Your task to perform on an android device: Open sound settings Image 0: 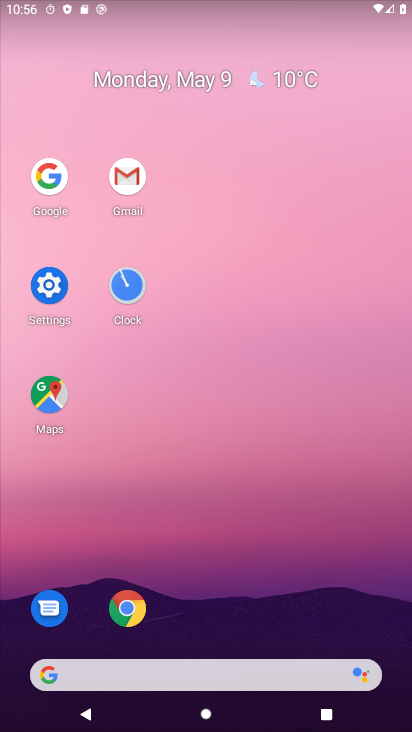
Step 0: click (61, 288)
Your task to perform on an android device: Open sound settings Image 1: 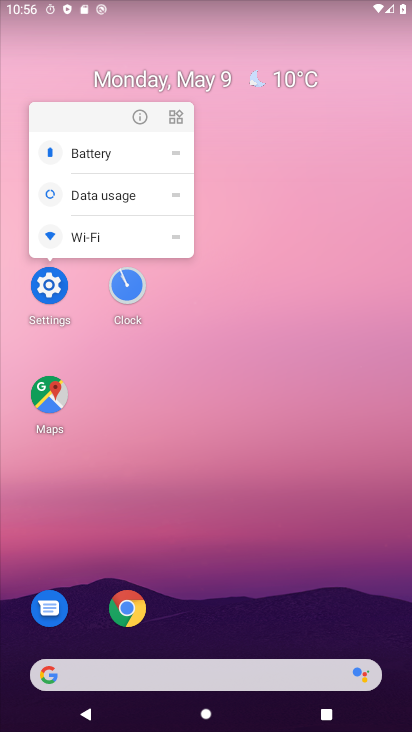
Step 1: click (67, 296)
Your task to perform on an android device: Open sound settings Image 2: 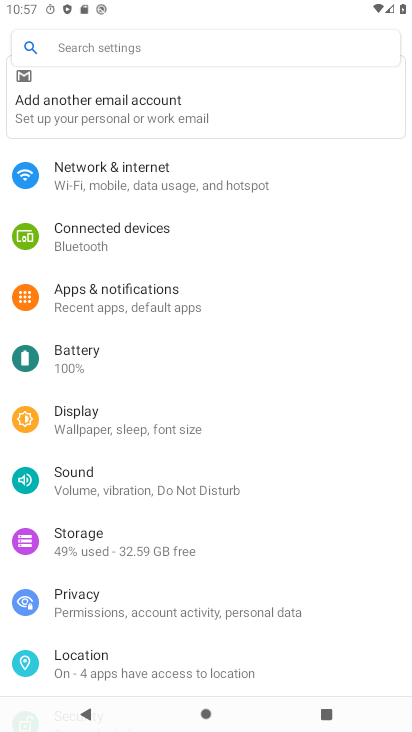
Step 2: click (142, 476)
Your task to perform on an android device: Open sound settings Image 3: 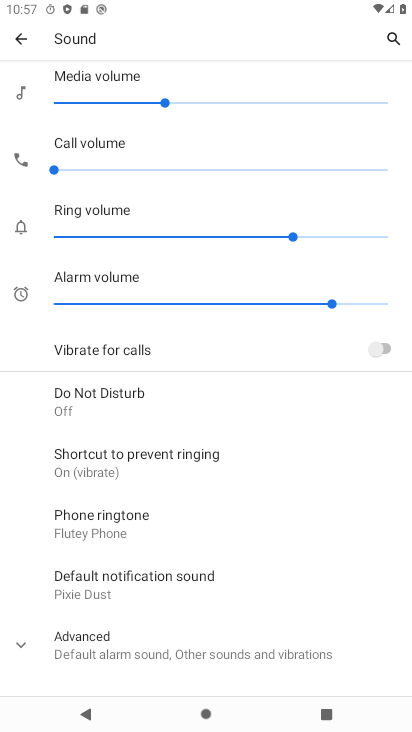
Step 3: task complete